Your task to perform on an android device: Turn on the flashlight Image 0: 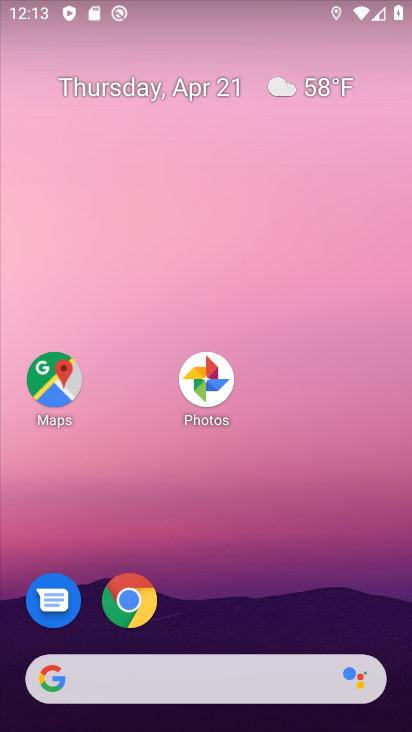
Step 0: drag from (245, 646) to (212, 42)
Your task to perform on an android device: Turn on the flashlight Image 1: 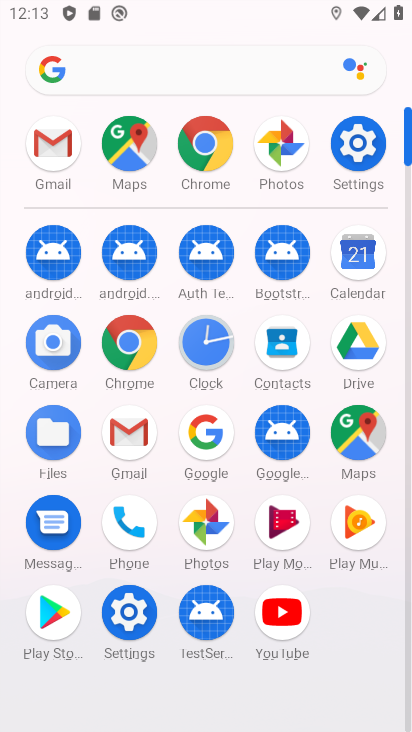
Step 1: click (359, 146)
Your task to perform on an android device: Turn on the flashlight Image 2: 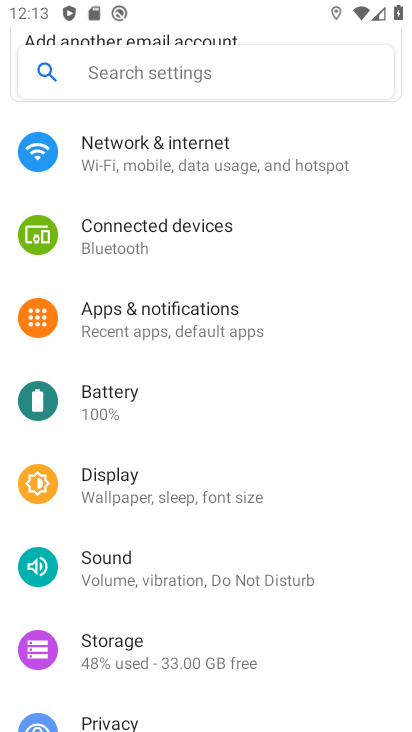
Step 2: task complete